Your task to perform on an android device: Open calendar and show me the fourth week of next month Image 0: 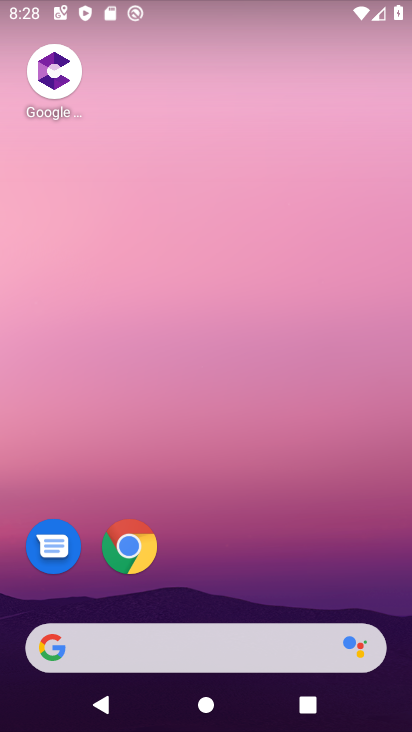
Step 0: drag from (213, 608) to (326, 160)
Your task to perform on an android device: Open calendar and show me the fourth week of next month Image 1: 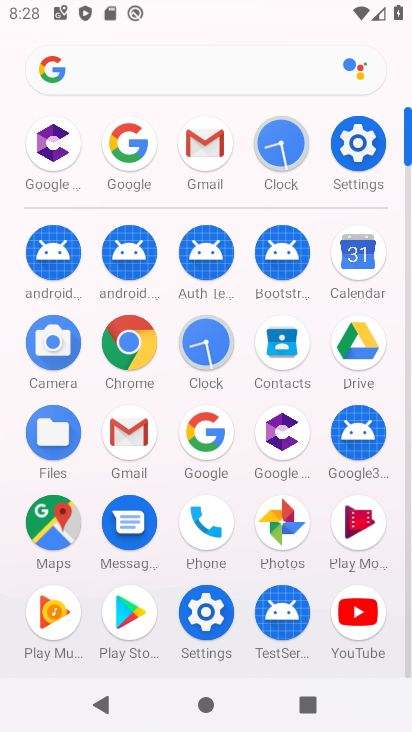
Step 1: click (359, 261)
Your task to perform on an android device: Open calendar and show me the fourth week of next month Image 2: 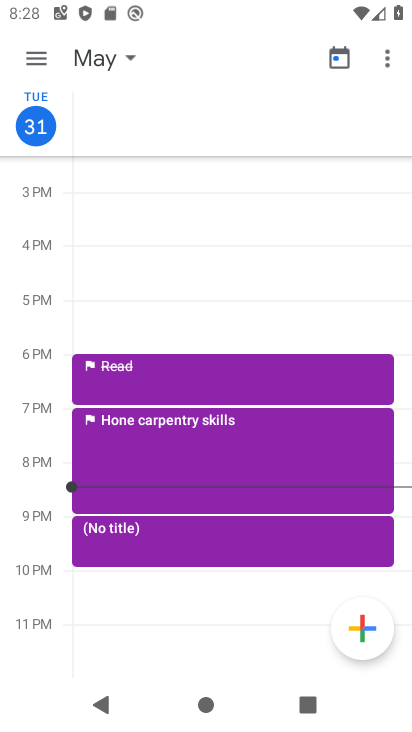
Step 2: click (117, 56)
Your task to perform on an android device: Open calendar and show me the fourth week of next month Image 3: 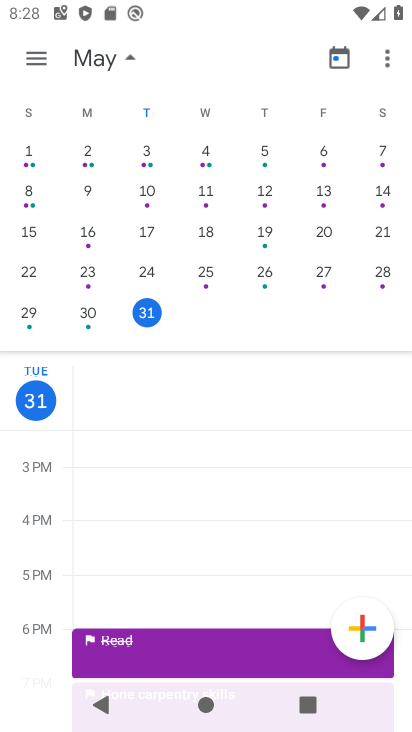
Step 3: drag from (383, 321) to (52, 232)
Your task to perform on an android device: Open calendar and show me the fourth week of next month Image 4: 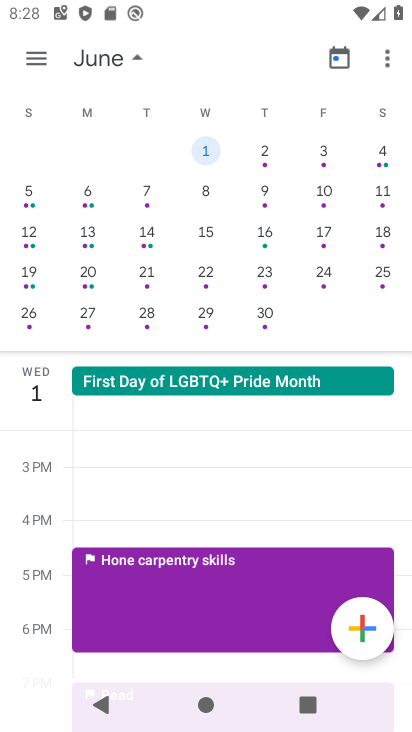
Step 4: click (196, 271)
Your task to perform on an android device: Open calendar and show me the fourth week of next month Image 5: 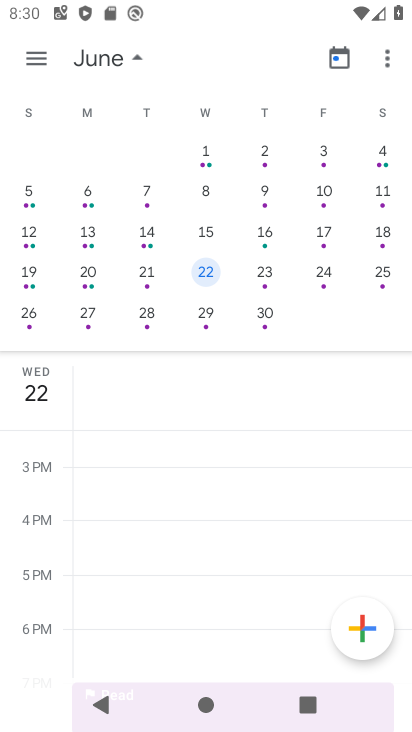
Step 5: task complete